Your task to perform on an android device: change notification settings in the gmail app Image 0: 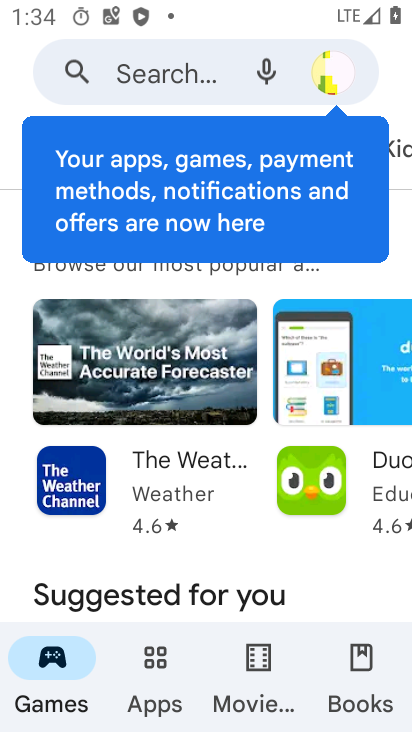
Step 0: press back button
Your task to perform on an android device: change notification settings in the gmail app Image 1: 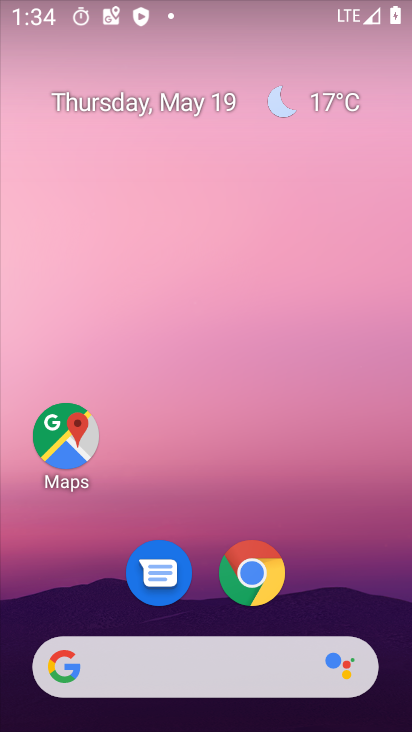
Step 1: drag from (179, 517) to (257, 143)
Your task to perform on an android device: change notification settings in the gmail app Image 2: 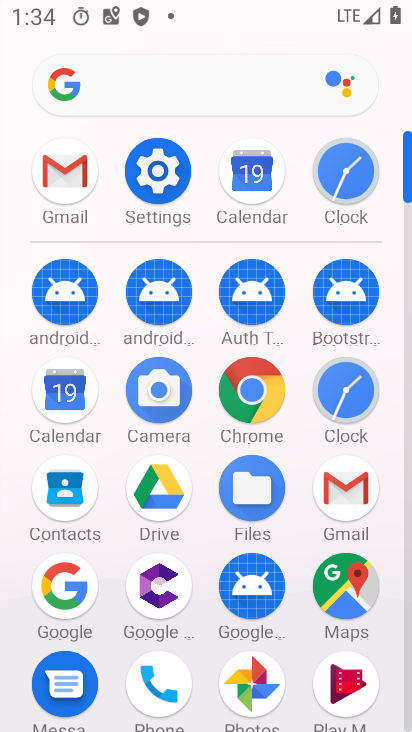
Step 2: click (71, 173)
Your task to perform on an android device: change notification settings in the gmail app Image 3: 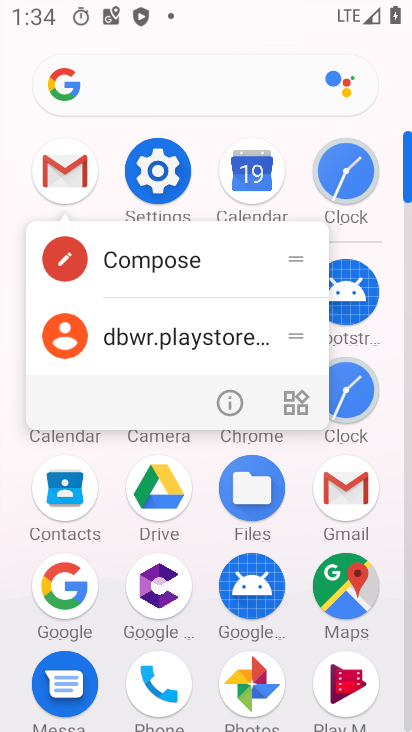
Step 3: click (232, 392)
Your task to perform on an android device: change notification settings in the gmail app Image 4: 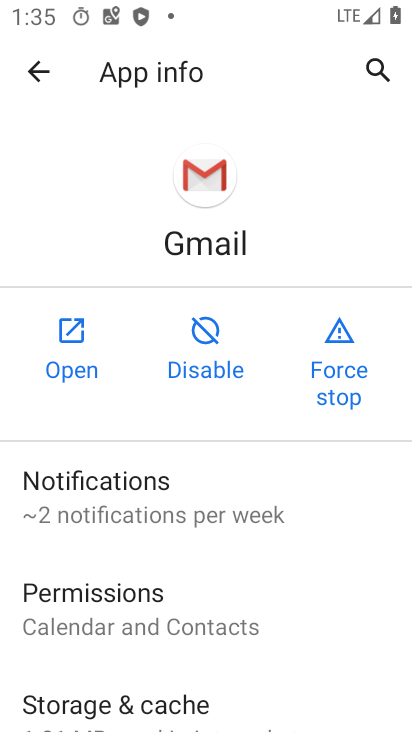
Step 4: click (130, 501)
Your task to perform on an android device: change notification settings in the gmail app Image 5: 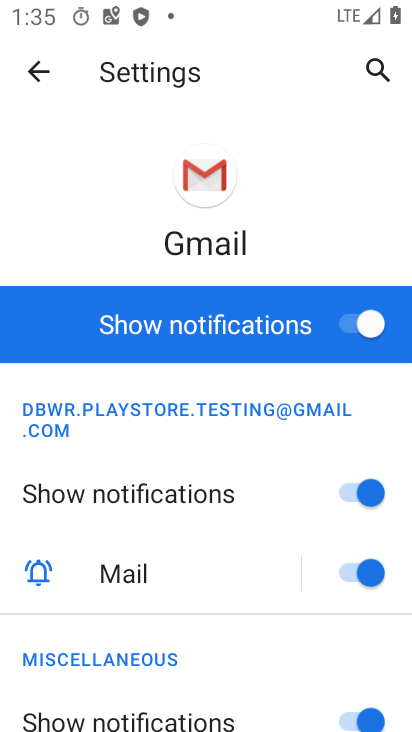
Step 5: drag from (181, 688) to (216, 334)
Your task to perform on an android device: change notification settings in the gmail app Image 6: 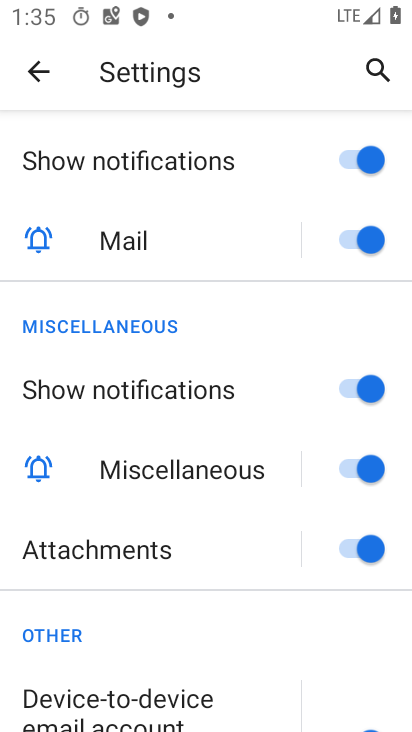
Step 6: drag from (140, 709) to (182, 646)
Your task to perform on an android device: change notification settings in the gmail app Image 7: 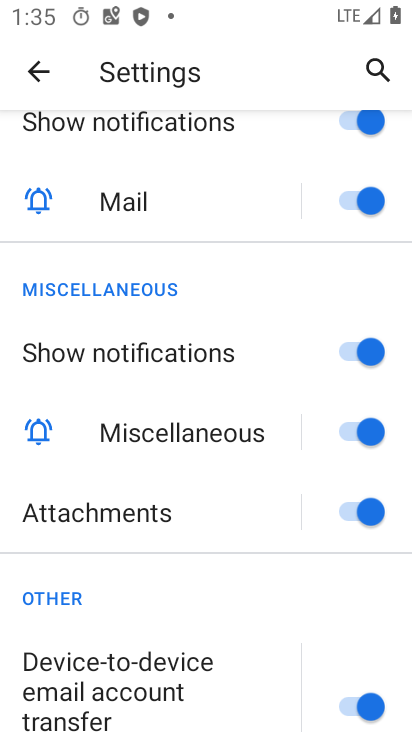
Step 7: drag from (180, 358) to (166, 580)
Your task to perform on an android device: change notification settings in the gmail app Image 8: 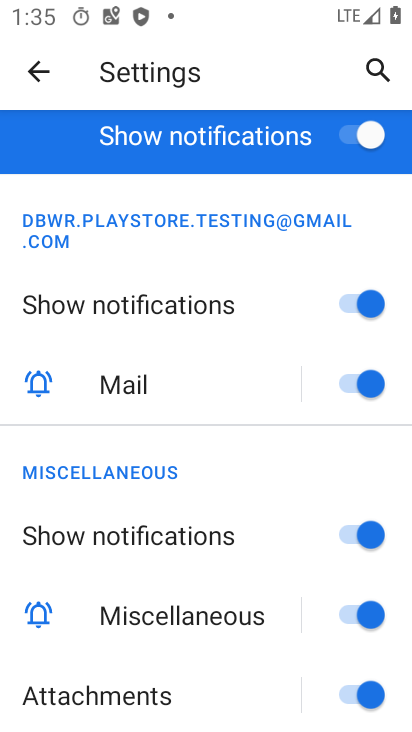
Step 8: click (356, 304)
Your task to perform on an android device: change notification settings in the gmail app Image 9: 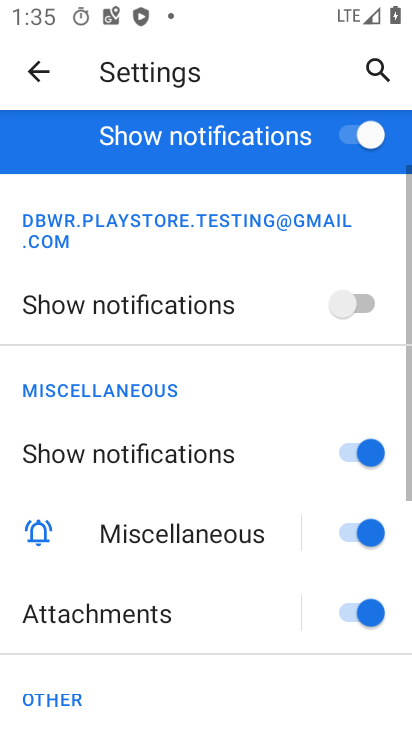
Step 9: task complete